Your task to perform on an android device: Turn on the flashlight Image 0: 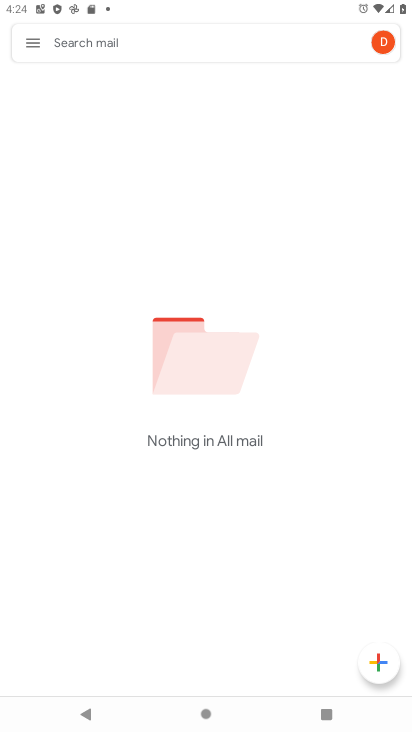
Step 0: press home button
Your task to perform on an android device: Turn on the flashlight Image 1: 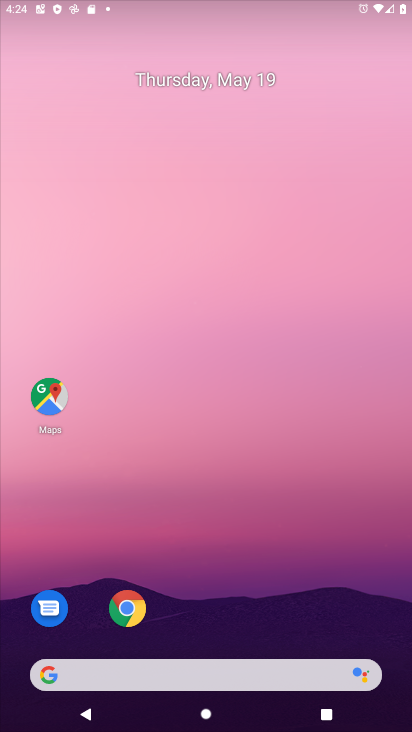
Step 1: drag from (215, 586) to (258, 95)
Your task to perform on an android device: Turn on the flashlight Image 2: 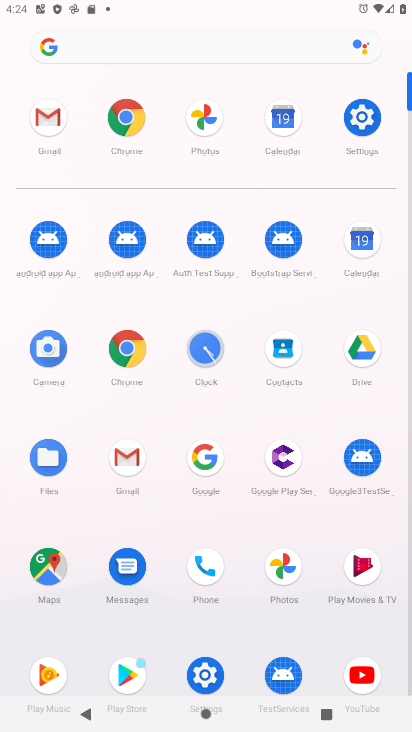
Step 2: click (346, 128)
Your task to perform on an android device: Turn on the flashlight Image 3: 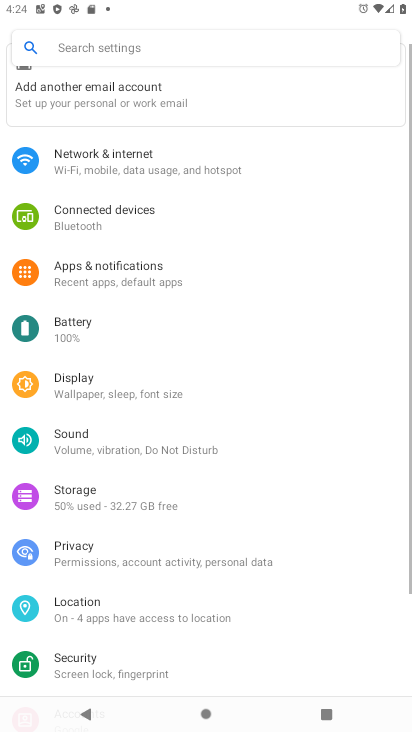
Step 3: click (227, 344)
Your task to perform on an android device: Turn on the flashlight Image 4: 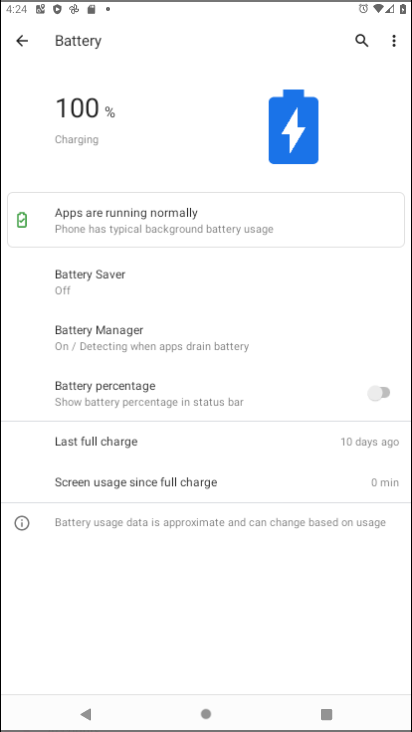
Step 4: task complete